Your task to perform on an android device: Search for Italian restaurants on Maps Image 0: 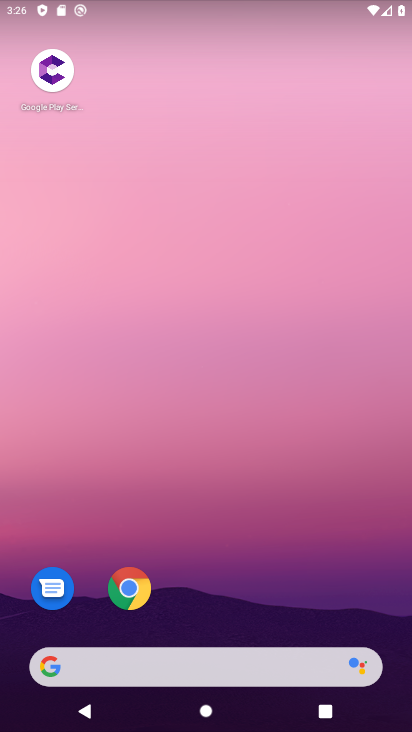
Step 0: drag from (266, 478) to (296, 0)
Your task to perform on an android device: Search for Italian restaurants on Maps Image 1: 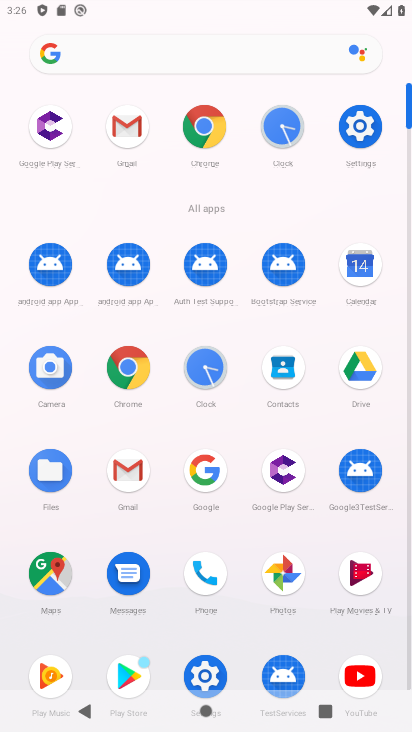
Step 1: click (49, 566)
Your task to perform on an android device: Search for Italian restaurants on Maps Image 2: 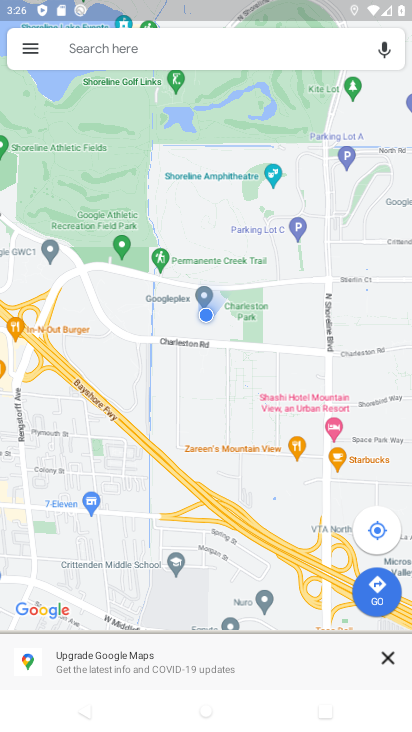
Step 2: click (145, 38)
Your task to perform on an android device: Search for Italian restaurants on Maps Image 3: 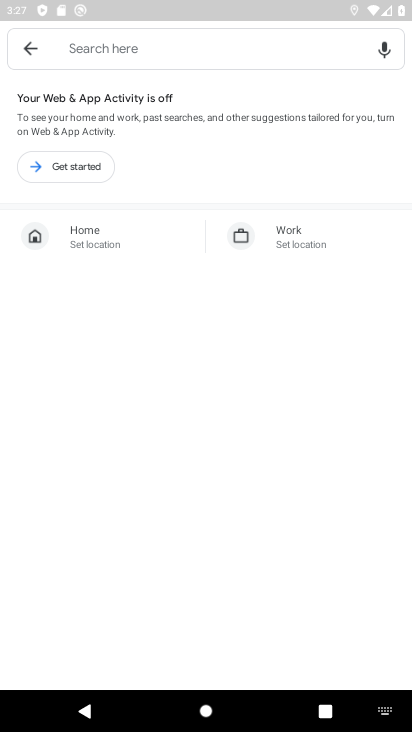
Step 3: type " Italian restaurants"
Your task to perform on an android device: Search for Italian restaurants on Maps Image 4: 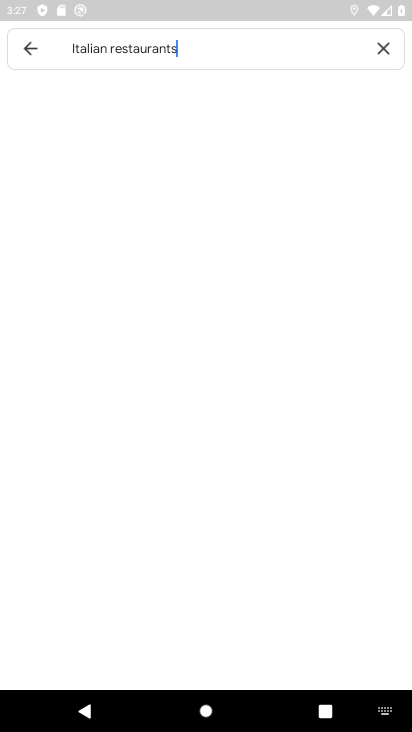
Step 4: press enter
Your task to perform on an android device: Search for Italian restaurants on Maps Image 5: 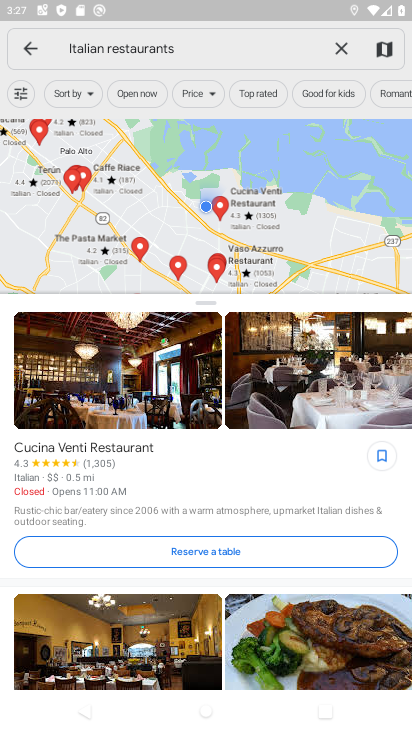
Step 5: task complete